Your task to perform on an android device: open app "Microsoft Authenticator" (install if not already installed), go to login, and select forgot password Image 0: 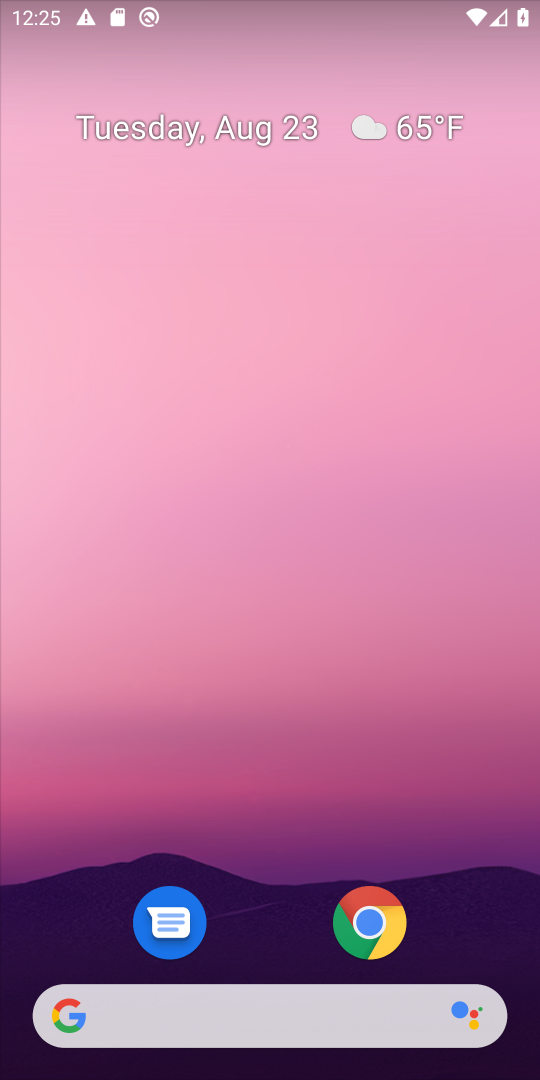
Step 0: drag from (243, 948) to (294, 354)
Your task to perform on an android device: open app "Microsoft Authenticator" (install if not already installed), go to login, and select forgot password Image 1: 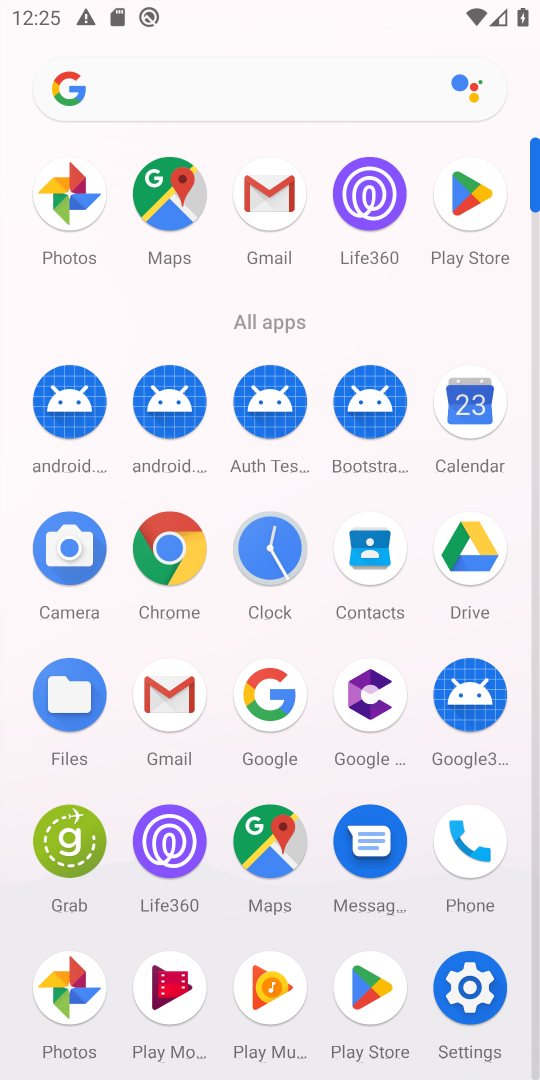
Step 1: click (470, 223)
Your task to perform on an android device: open app "Microsoft Authenticator" (install if not already installed), go to login, and select forgot password Image 2: 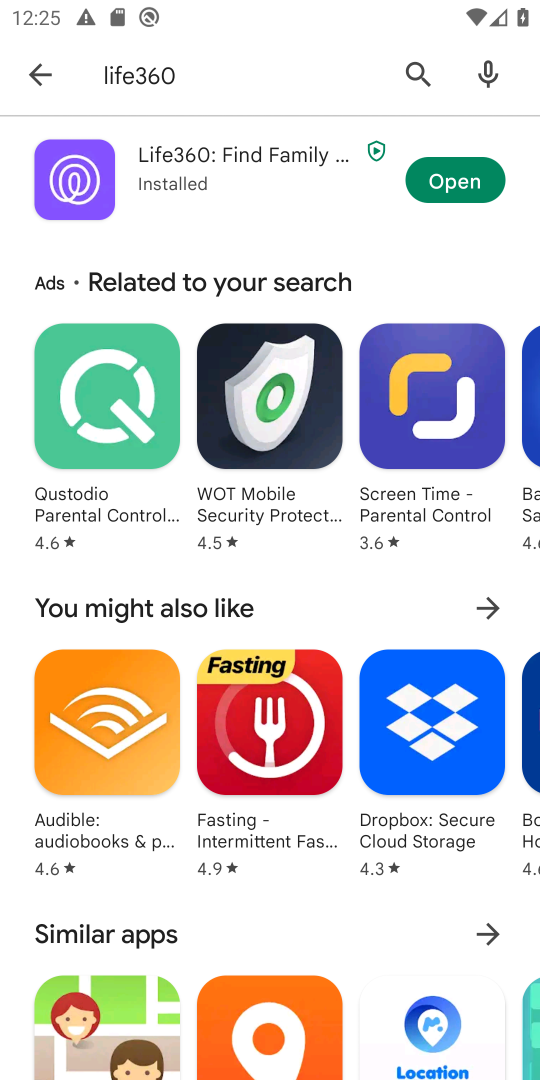
Step 2: click (228, 85)
Your task to perform on an android device: open app "Microsoft Authenticator" (install if not already installed), go to login, and select forgot password Image 3: 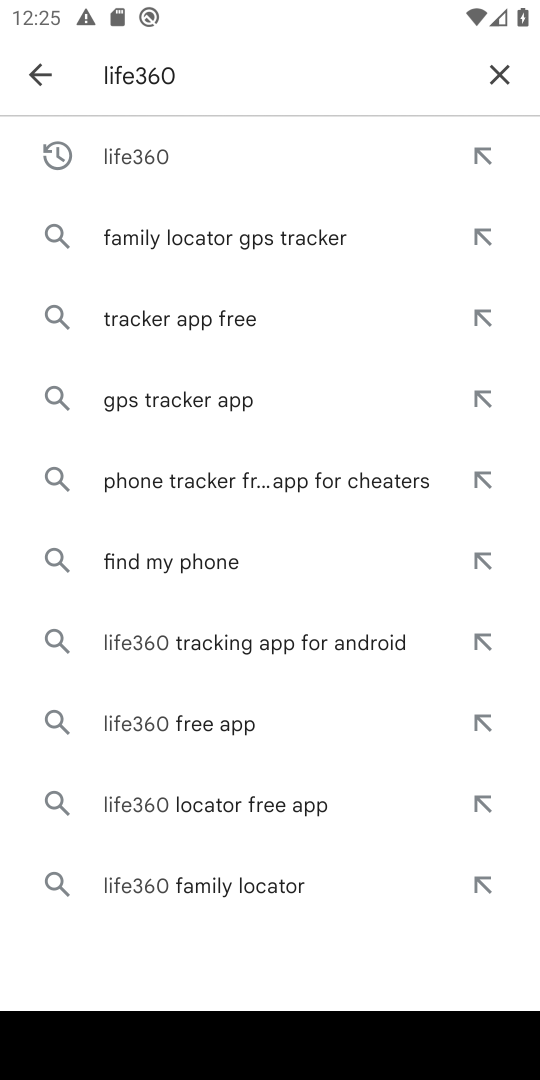
Step 3: click (489, 71)
Your task to perform on an android device: open app "Microsoft Authenticator" (install if not already installed), go to login, and select forgot password Image 4: 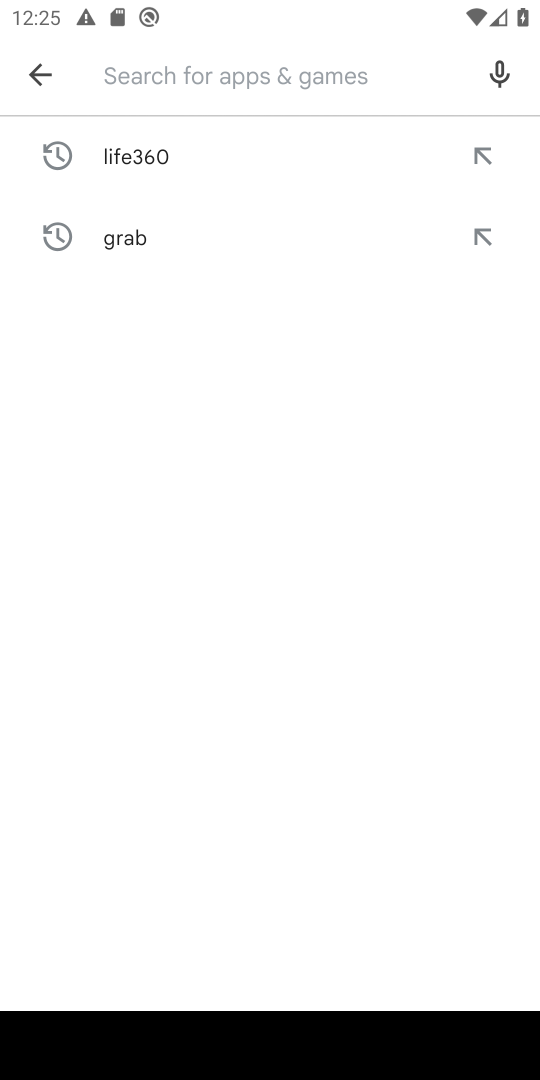
Step 4: type "microsoft Authenticator"
Your task to perform on an android device: open app "Microsoft Authenticator" (install if not already installed), go to login, and select forgot password Image 5: 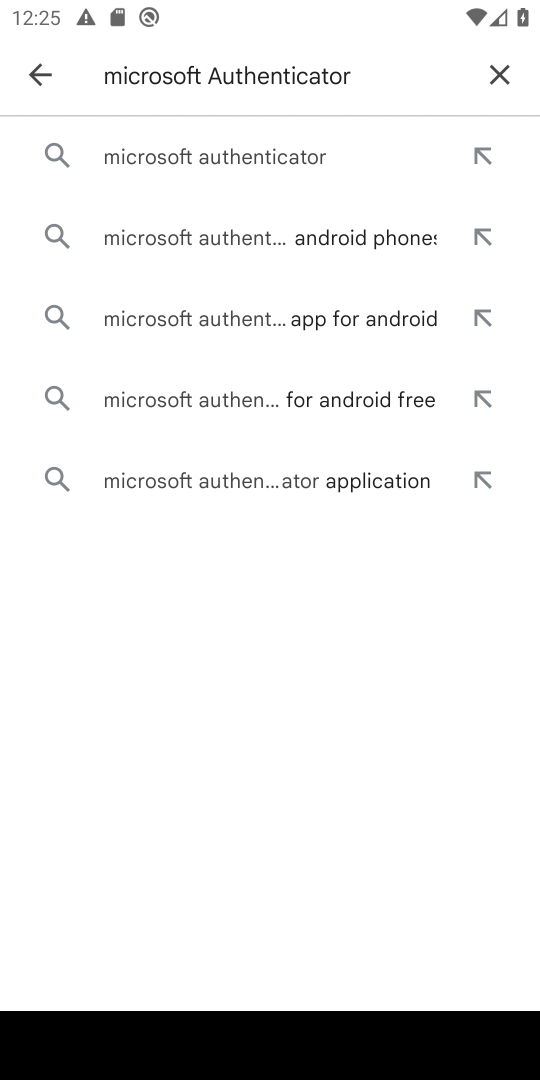
Step 5: click (284, 157)
Your task to perform on an android device: open app "Microsoft Authenticator" (install if not already installed), go to login, and select forgot password Image 6: 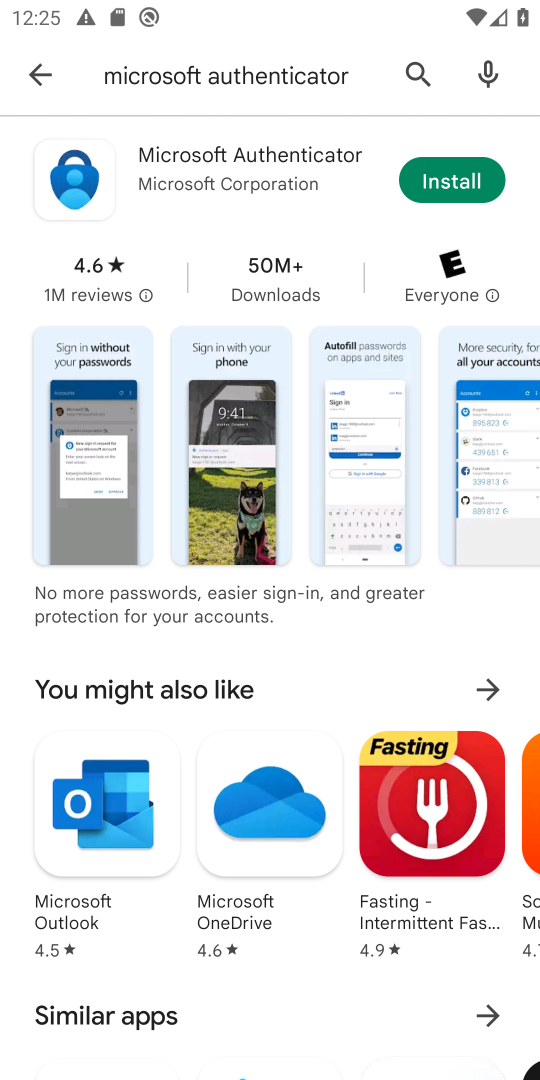
Step 6: click (417, 170)
Your task to perform on an android device: open app "Microsoft Authenticator" (install if not already installed), go to login, and select forgot password Image 7: 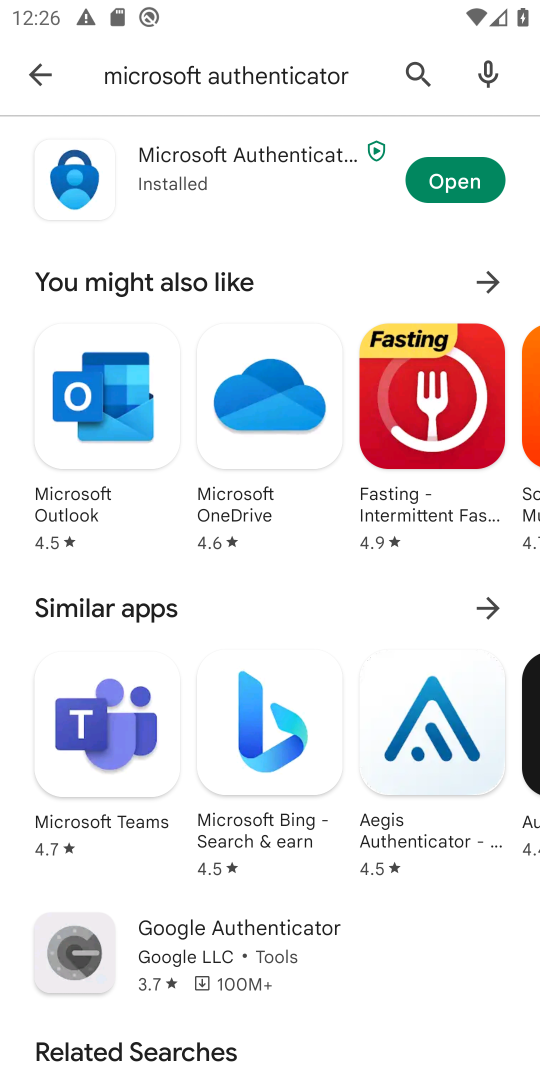
Step 7: click (461, 180)
Your task to perform on an android device: open app "Microsoft Authenticator" (install if not already installed), go to login, and select forgot password Image 8: 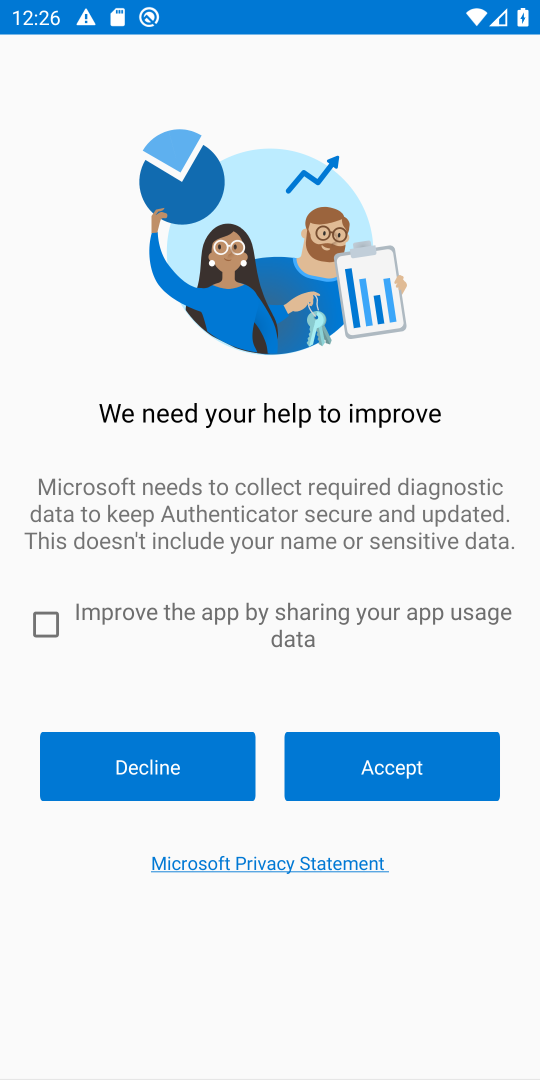
Step 8: click (30, 620)
Your task to perform on an android device: open app "Microsoft Authenticator" (install if not already installed), go to login, and select forgot password Image 9: 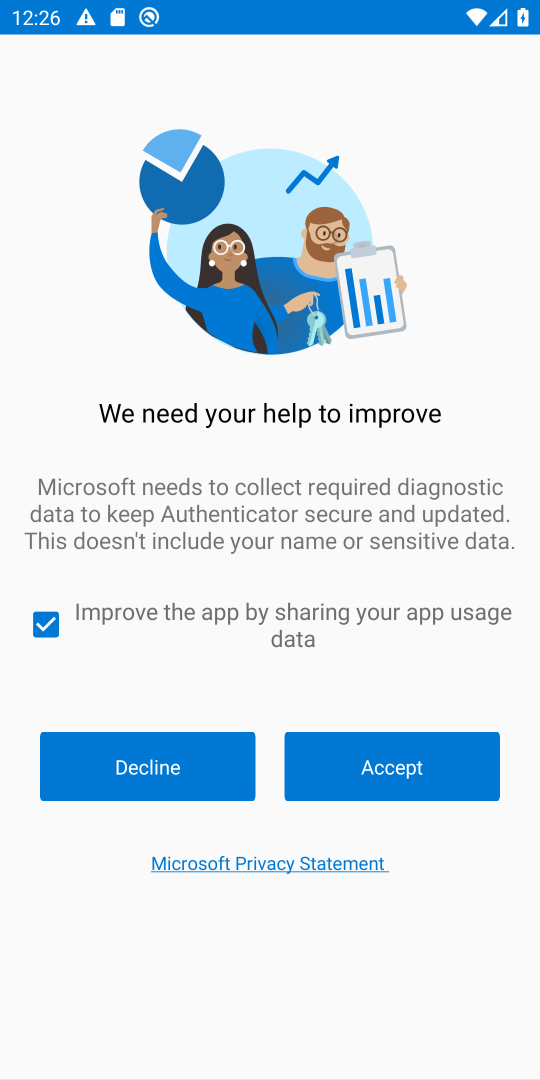
Step 9: click (422, 777)
Your task to perform on an android device: open app "Microsoft Authenticator" (install if not already installed), go to login, and select forgot password Image 10: 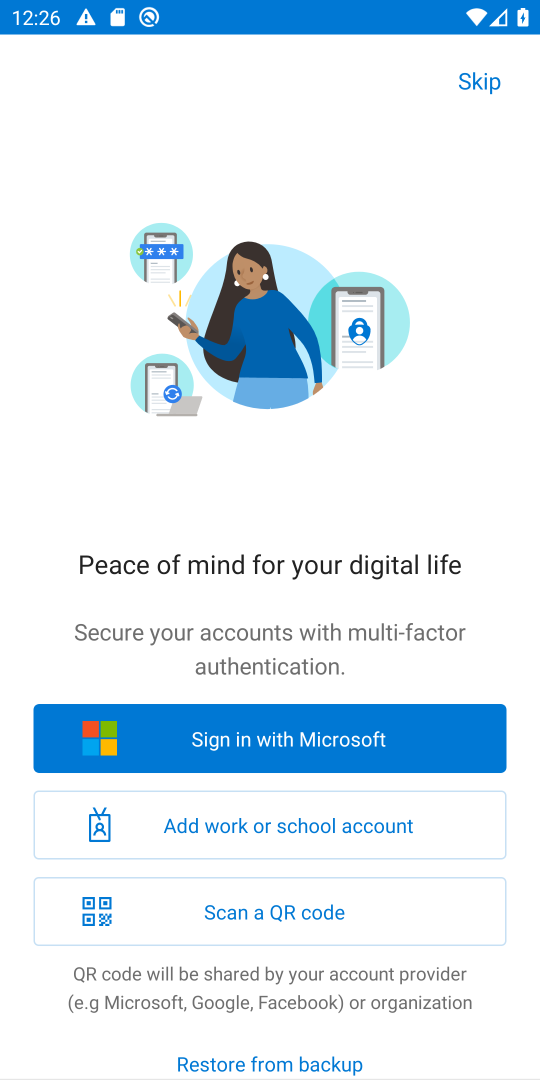
Step 10: drag from (344, 954) to (351, 813)
Your task to perform on an android device: open app "Microsoft Authenticator" (install if not already installed), go to login, and select forgot password Image 11: 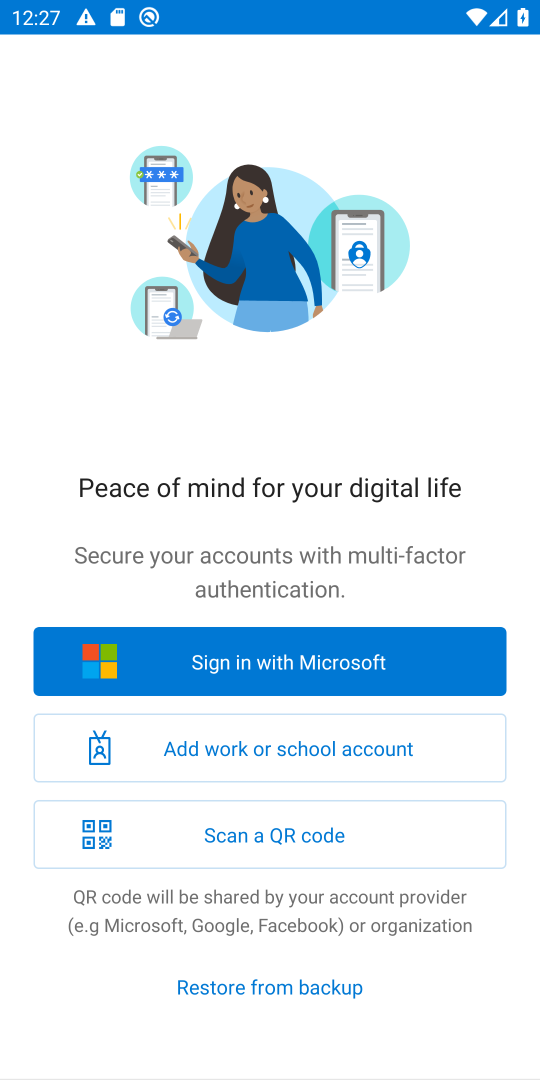
Step 11: click (338, 648)
Your task to perform on an android device: open app "Microsoft Authenticator" (install if not already installed), go to login, and select forgot password Image 12: 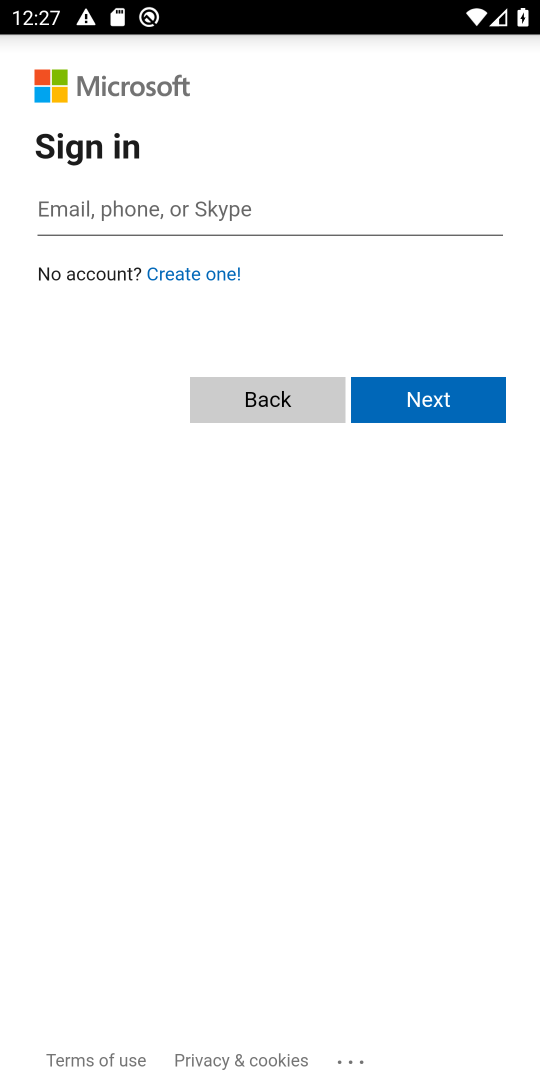
Step 12: task complete